Your task to perform on an android device: remove spam from my inbox in the gmail app Image 0: 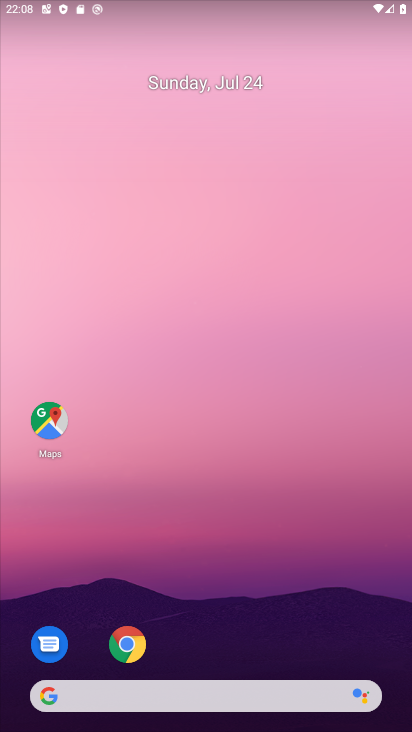
Step 0: drag from (362, 652) to (306, 42)
Your task to perform on an android device: remove spam from my inbox in the gmail app Image 1: 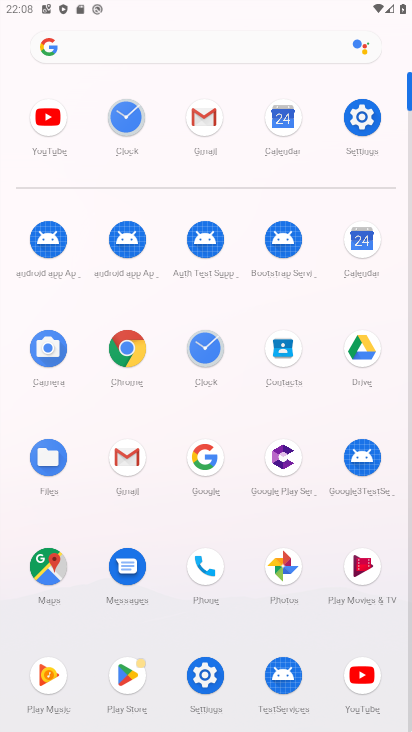
Step 1: click (127, 458)
Your task to perform on an android device: remove spam from my inbox in the gmail app Image 2: 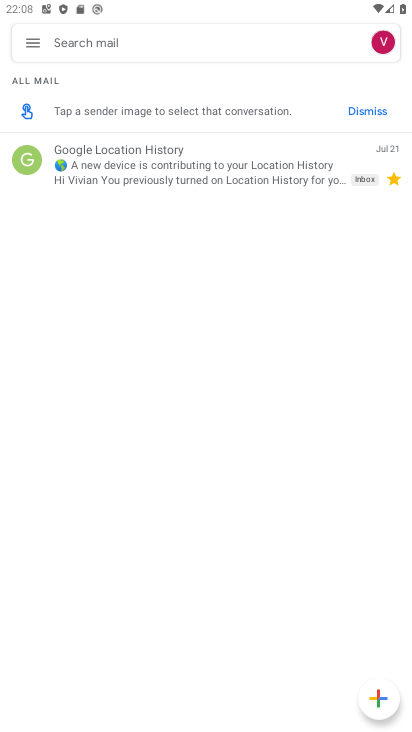
Step 2: click (31, 38)
Your task to perform on an android device: remove spam from my inbox in the gmail app Image 3: 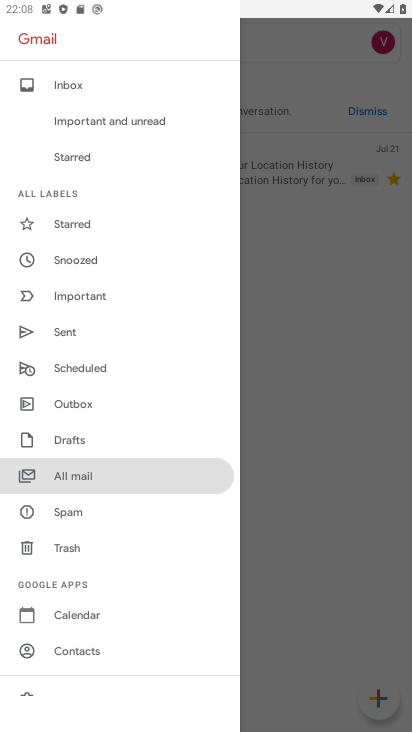
Step 3: click (73, 506)
Your task to perform on an android device: remove spam from my inbox in the gmail app Image 4: 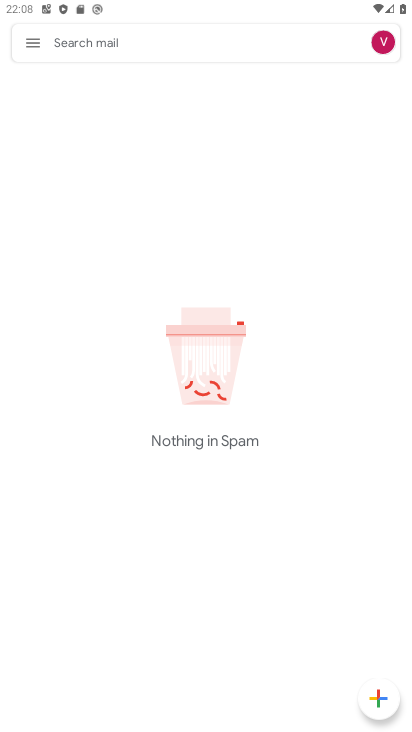
Step 4: task complete